Your task to perform on an android device: Show me the alarms in the clock app Image 0: 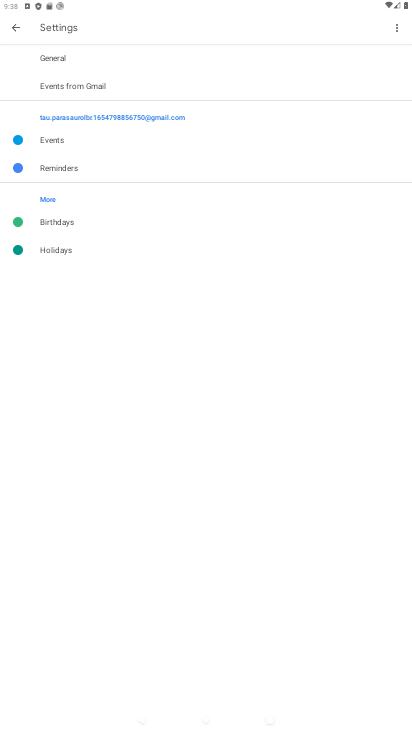
Step 0: press home button
Your task to perform on an android device: Show me the alarms in the clock app Image 1: 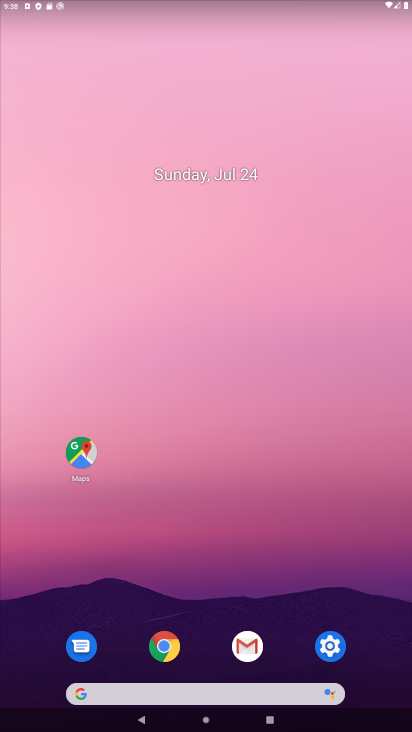
Step 1: drag from (292, 564) to (288, 74)
Your task to perform on an android device: Show me the alarms in the clock app Image 2: 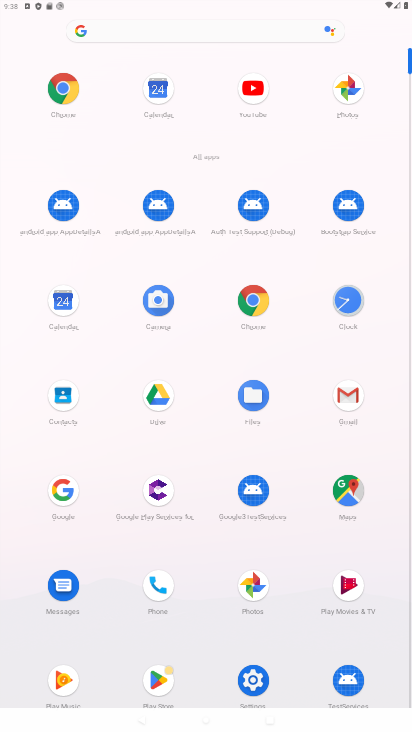
Step 2: click (339, 303)
Your task to perform on an android device: Show me the alarms in the clock app Image 3: 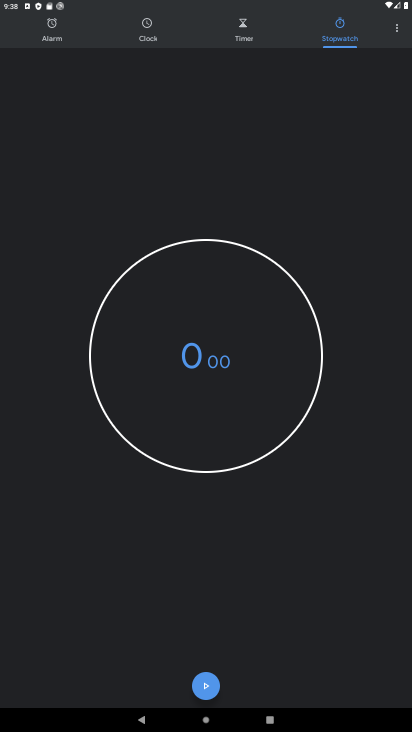
Step 3: click (53, 30)
Your task to perform on an android device: Show me the alarms in the clock app Image 4: 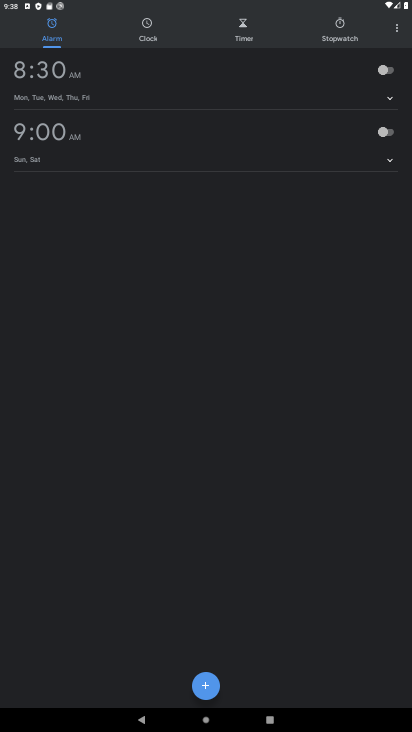
Step 4: task complete